Your task to perform on an android device: When is my next appointment? Image 0: 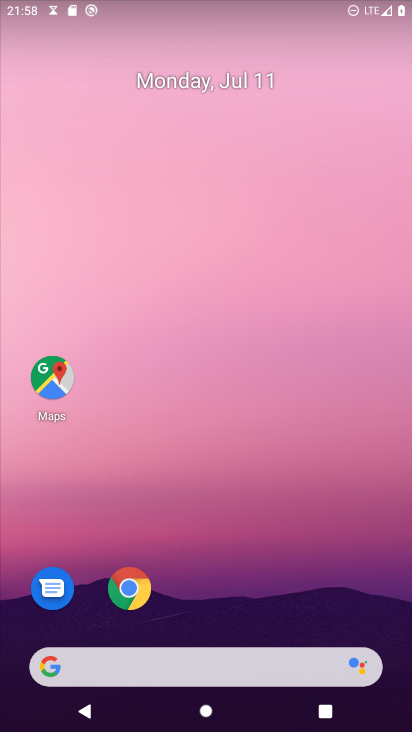
Step 0: press home button
Your task to perform on an android device: When is my next appointment? Image 1: 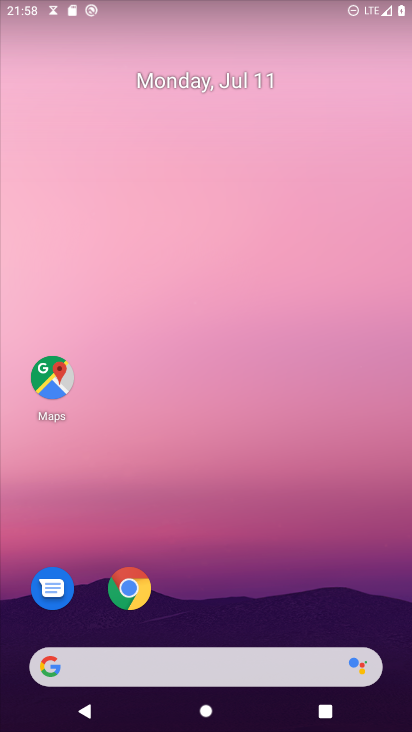
Step 1: press home button
Your task to perform on an android device: When is my next appointment? Image 2: 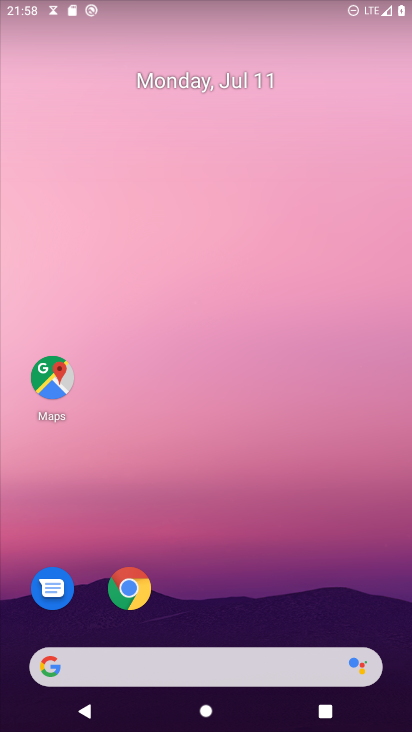
Step 2: drag from (228, 603) to (180, 114)
Your task to perform on an android device: When is my next appointment? Image 3: 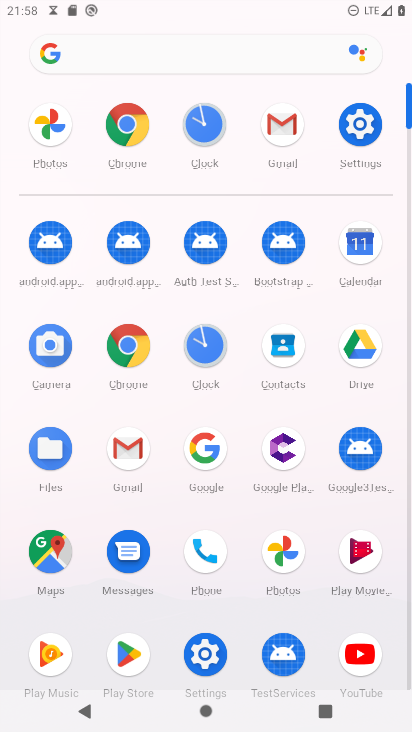
Step 3: click (370, 237)
Your task to perform on an android device: When is my next appointment? Image 4: 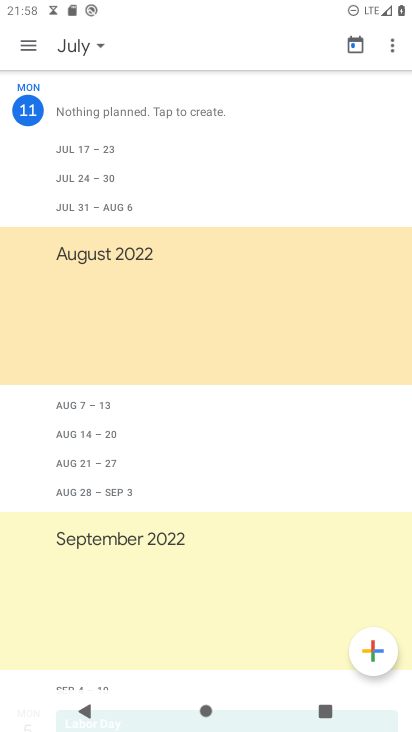
Step 4: click (24, 58)
Your task to perform on an android device: When is my next appointment? Image 5: 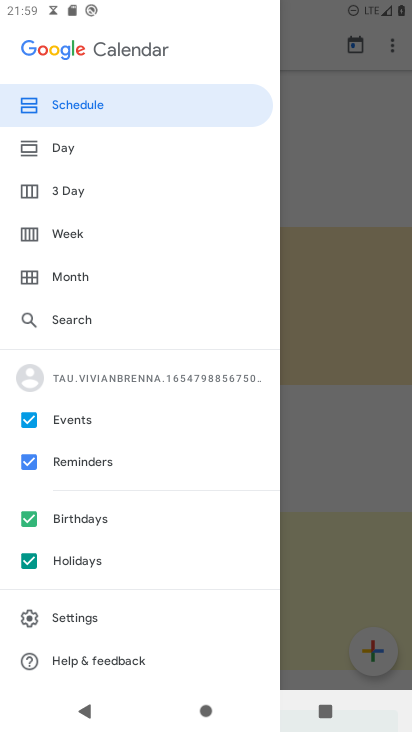
Step 5: click (180, 111)
Your task to perform on an android device: When is my next appointment? Image 6: 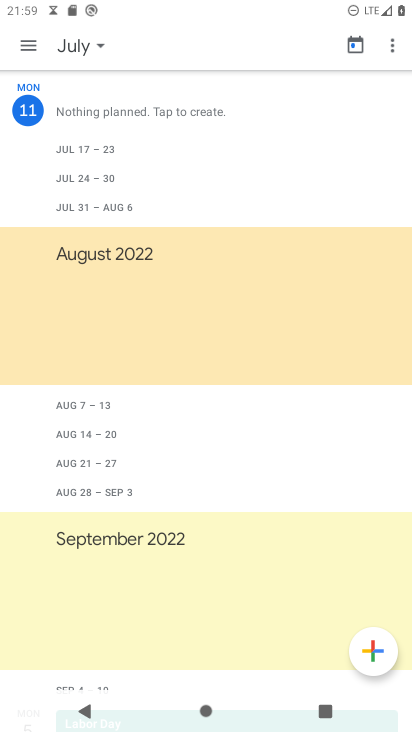
Step 6: task complete